Your task to perform on an android device: Search for jbl charge 4 on ebay.com, select the first entry, add it to the cart, then select checkout. Image 0: 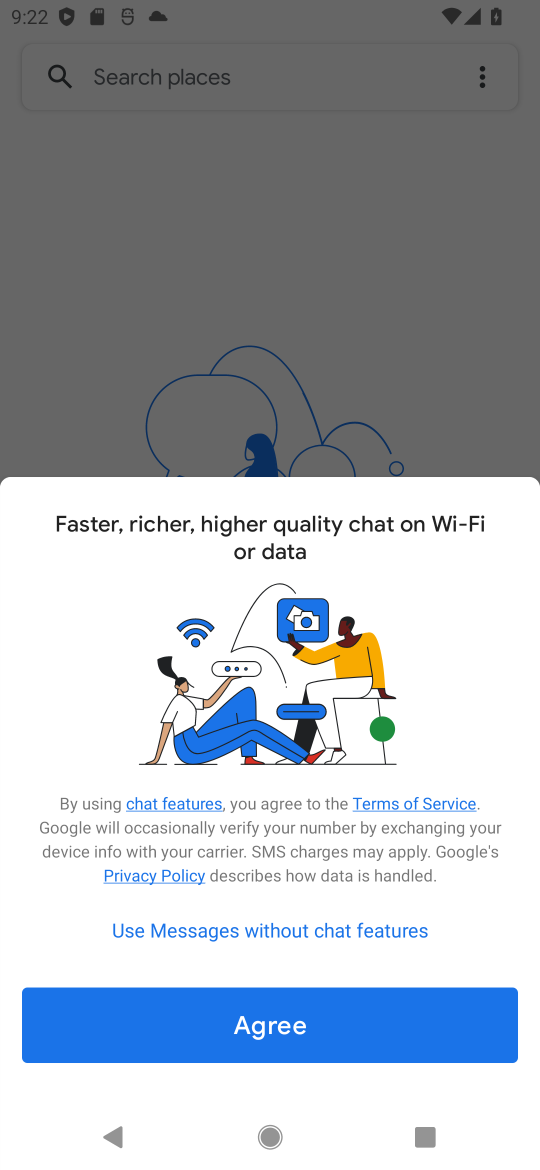
Step 0: press home button
Your task to perform on an android device: Search for jbl charge 4 on ebay.com, select the first entry, add it to the cart, then select checkout. Image 1: 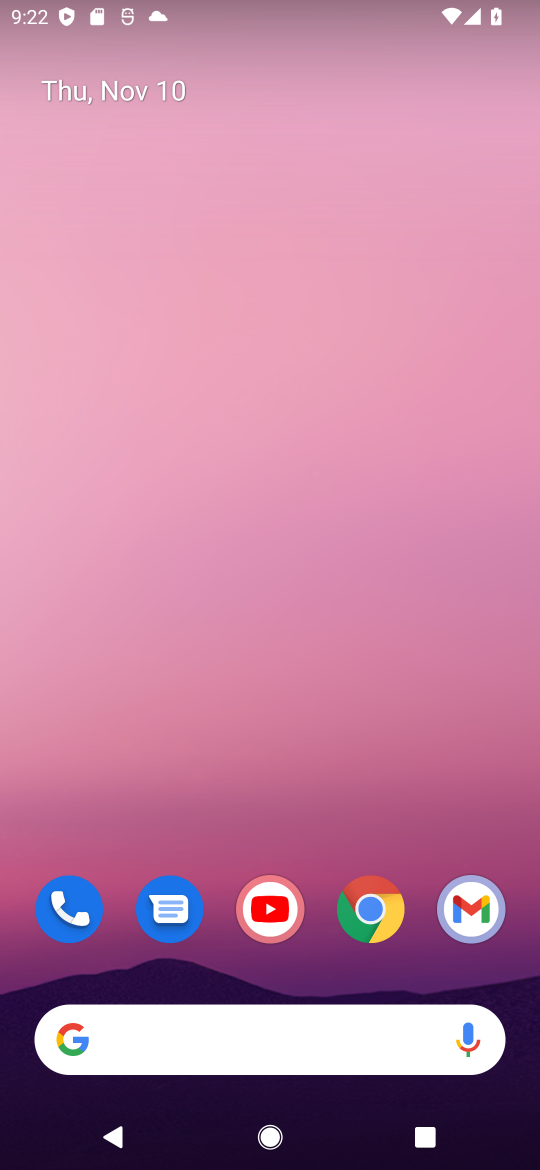
Step 1: drag from (159, 1023) to (295, 469)
Your task to perform on an android device: Search for jbl charge 4 on ebay.com, select the first entry, add it to the cart, then select checkout. Image 2: 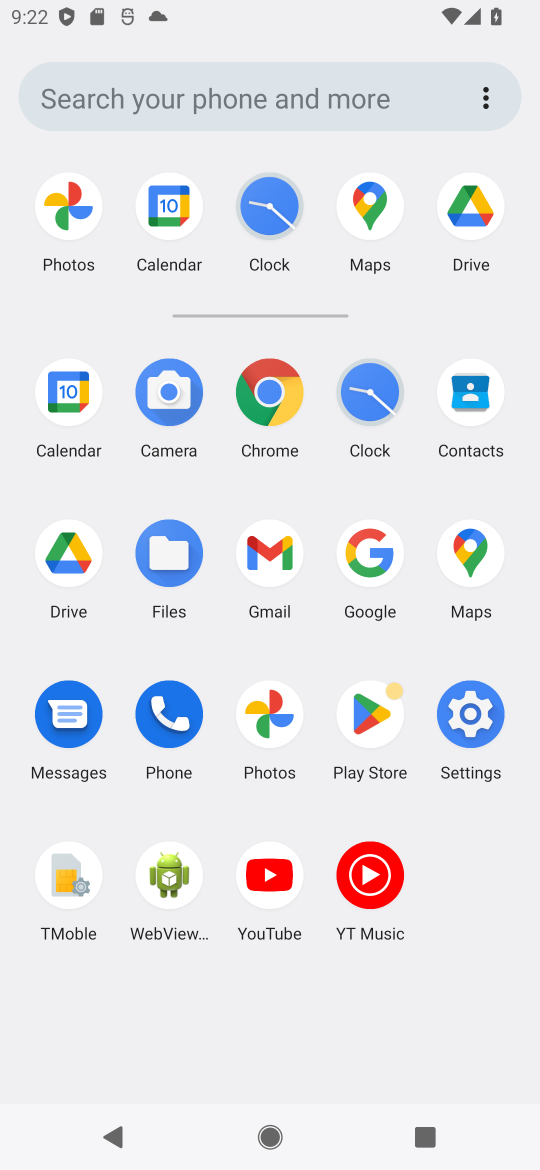
Step 2: click (365, 532)
Your task to perform on an android device: Search for jbl charge 4 on ebay.com, select the first entry, add it to the cart, then select checkout. Image 3: 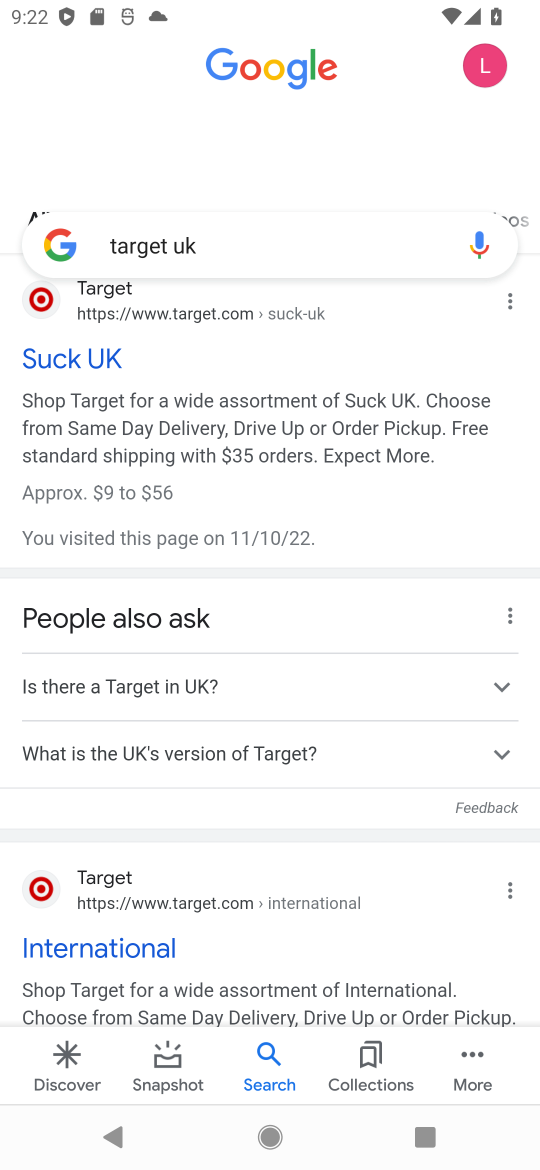
Step 3: click (213, 234)
Your task to perform on an android device: Search for jbl charge 4 on ebay.com, select the first entry, add it to the cart, then select checkout. Image 4: 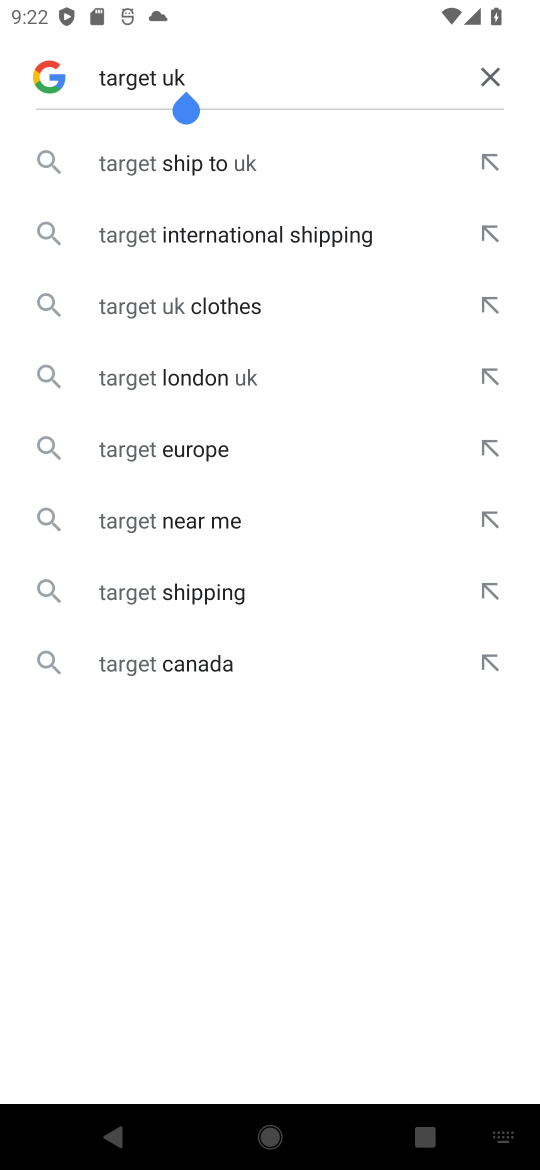
Step 4: click (494, 68)
Your task to perform on an android device: Search for jbl charge 4 on ebay.com, select the first entry, add it to the cart, then select checkout. Image 5: 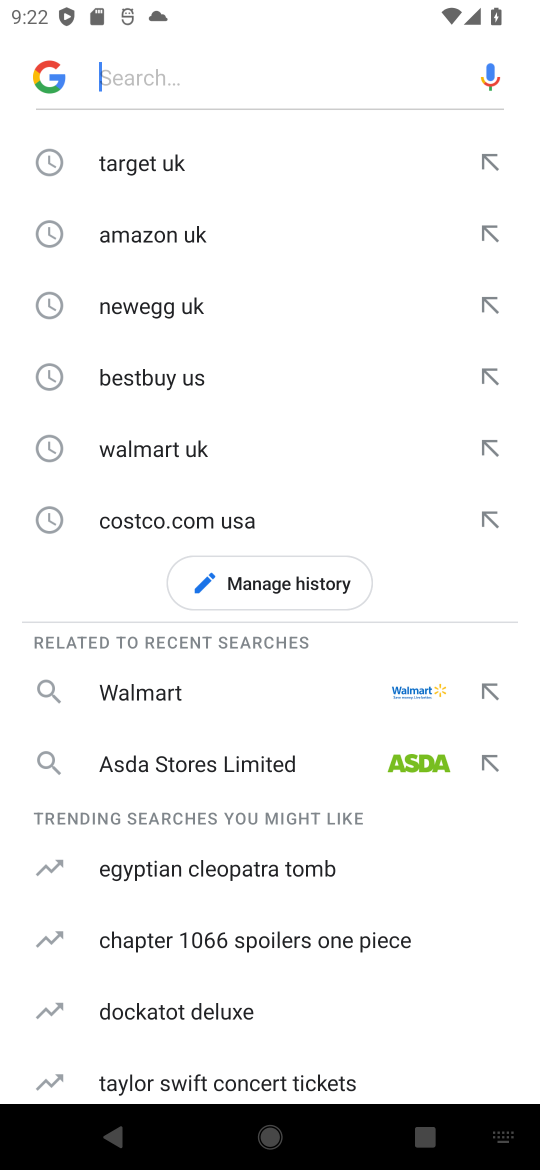
Step 5: click (240, 83)
Your task to perform on an android device: Search for jbl charge 4 on ebay.com, select the first entry, add it to the cart, then select checkout. Image 6: 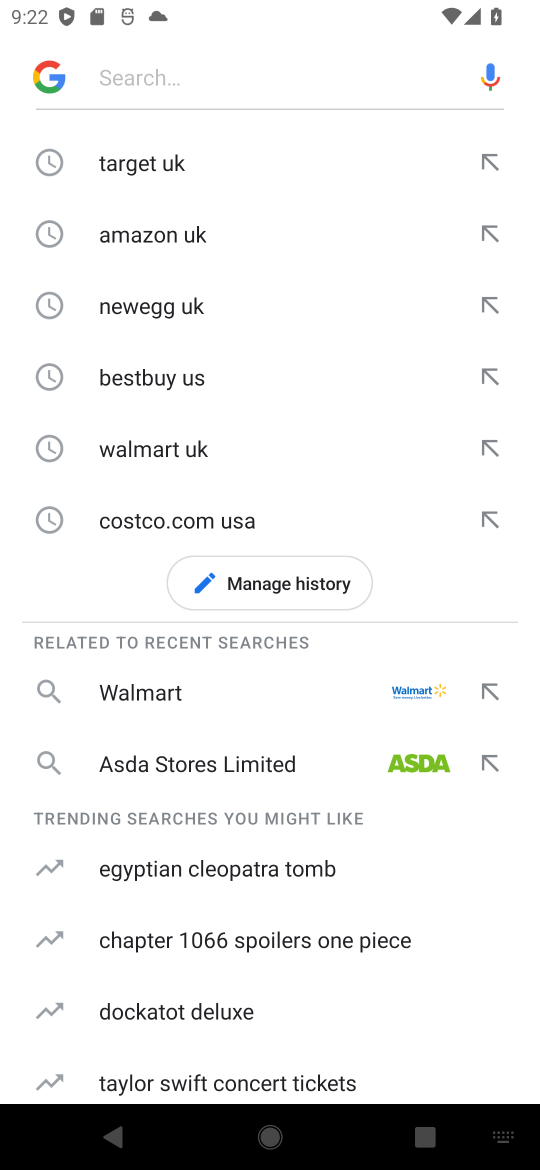
Step 6: type "ebay "
Your task to perform on an android device: Search for jbl charge 4 on ebay.com, select the first entry, add it to the cart, then select checkout. Image 7: 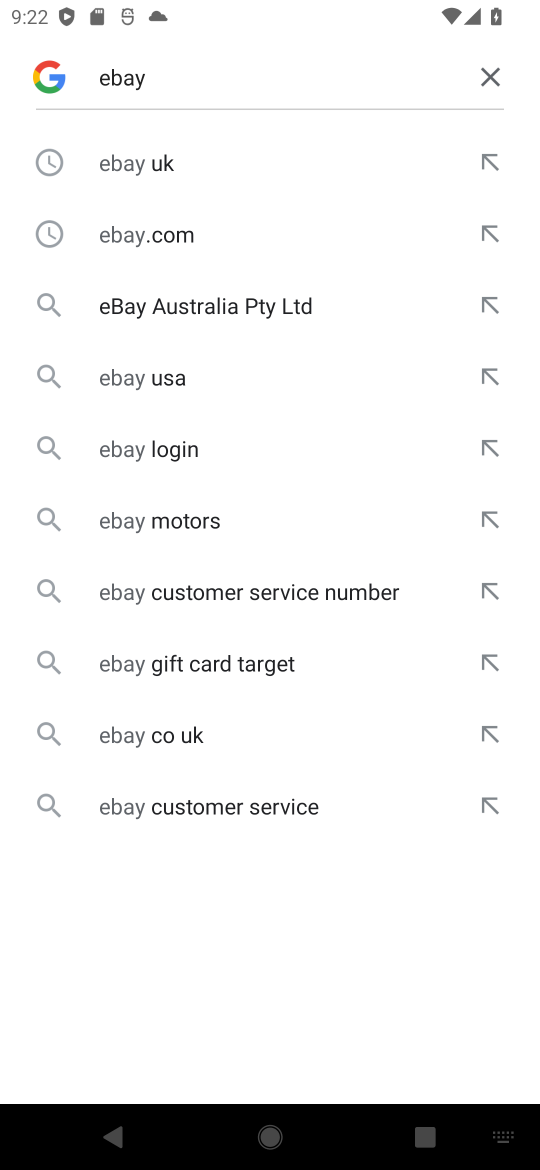
Step 7: click (133, 148)
Your task to perform on an android device: Search for jbl charge 4 on ebay.com, select the first entry, add it to the cart, then select checkout. Image 8: 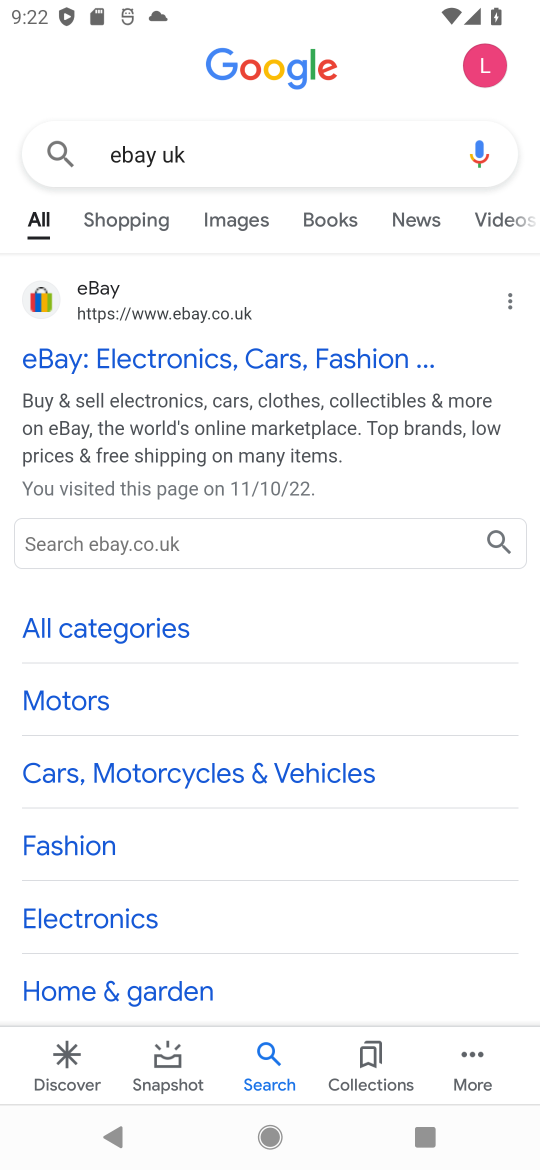
Step 8: click (34, 298)
Your task to perform on an android device: Search for jbl charge 4 on ebay.com, select the first entry, add it to the cart, then select checkout. Image 9: 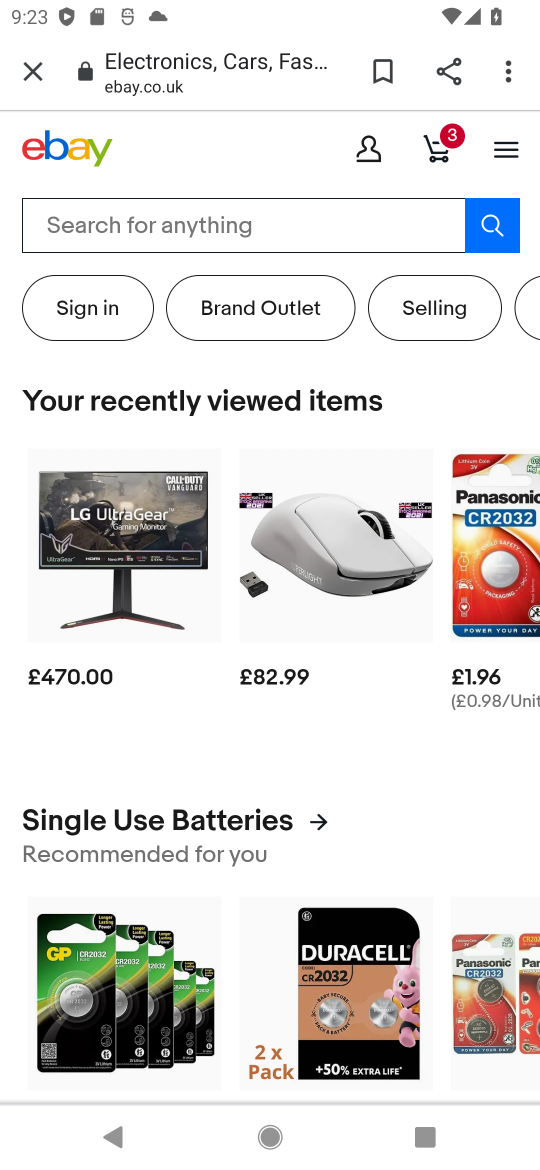
Step 9: click (212, 213)
Your task to perform on an android device: Search for jbl charge 4 on ebay.com, select the first entry, add it to the cart, then select checkout. Image 10: 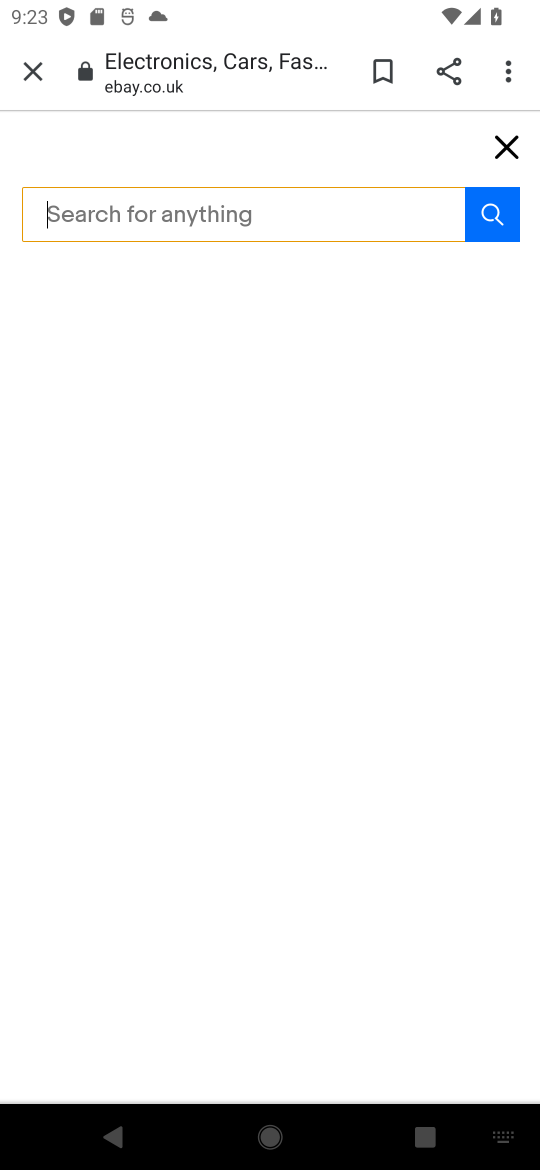
Step 10: type "jbl charge 4 "
Your task to perform on an android device: Search for jbl charge 4 on ebay.com, select the first entry, add it to the cart, then select checkout. Image 11: 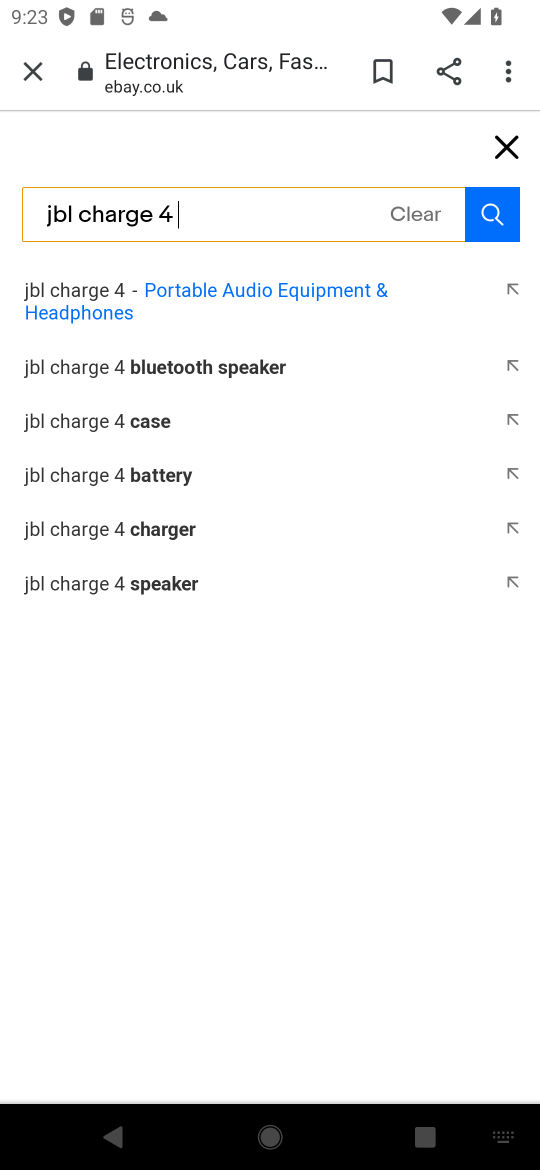
Step 11: click (190, 292)
Your task to perform on an android device: Search for jbl charge 4 on ebay.com, select the first entry, add it to the cart, then select checkout. Image 12: 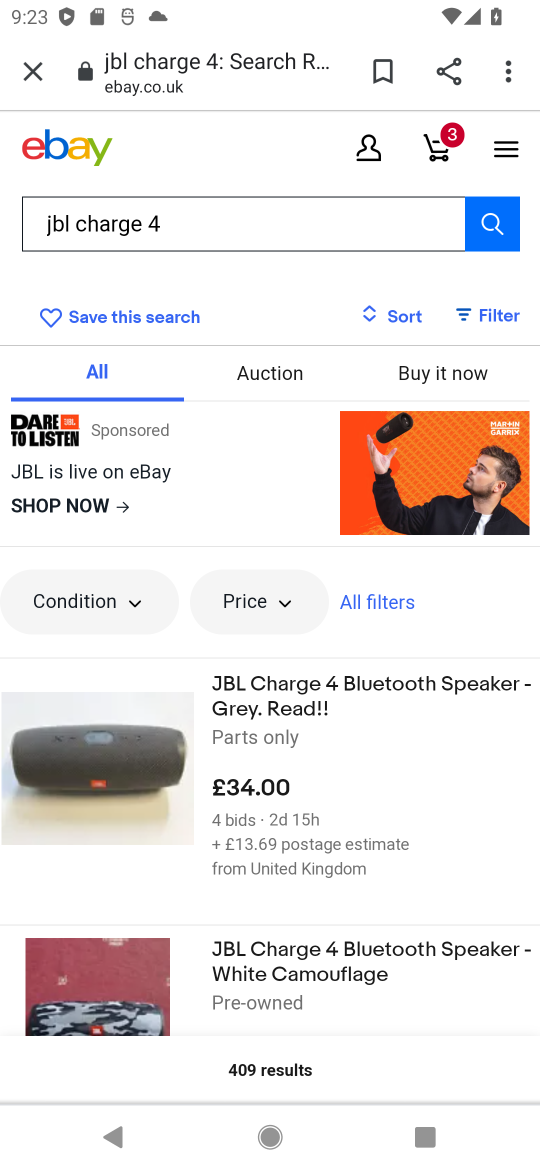
Step 12: click (317, 691)
Your task to perform on an android device: Search for jbl charge 4 on ebay.com, select the first entry, add it to the cart, then select checkout. Image 13: 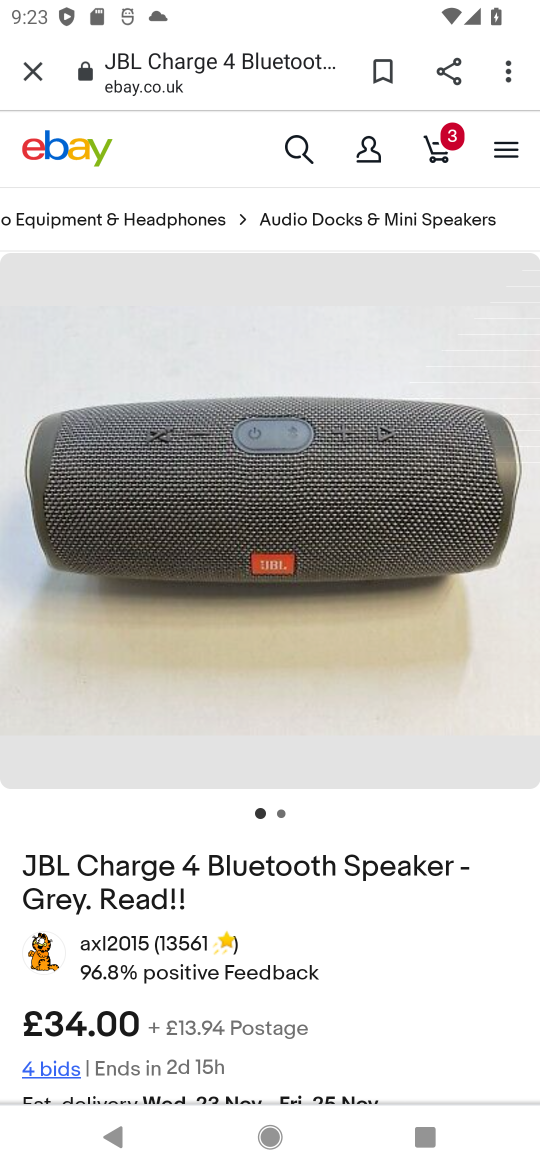
Step 13: drag from (310, 1008) to (414, 355)
Your task to perform on an android device: Search for jbl charge 4 on ebay.com, select the first entry, add it to the cart, then select checkout. Image 14: 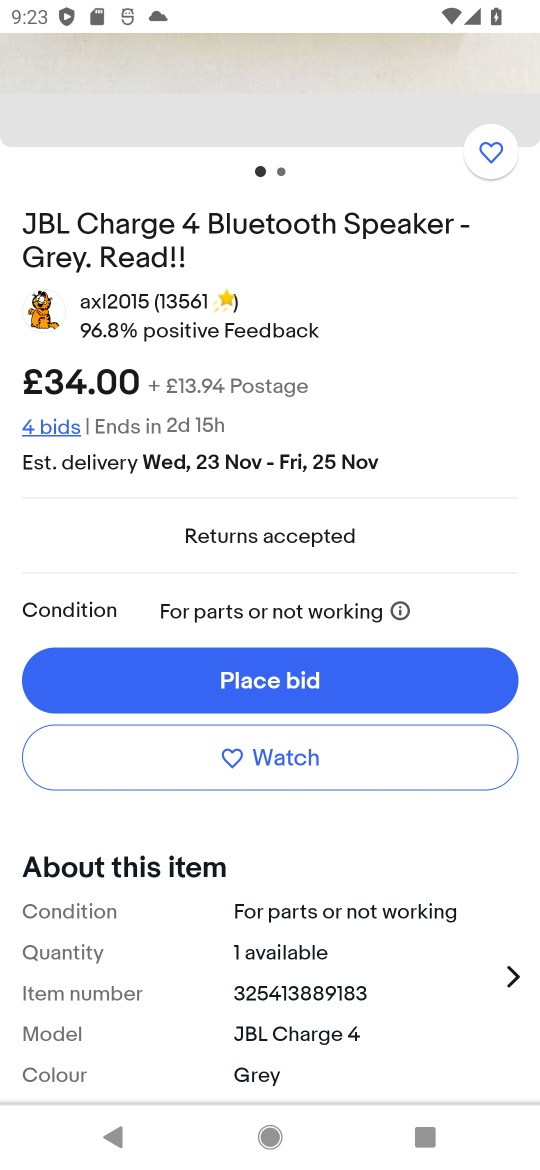
Step 14: drag from (286, 1083) to (410, 185)
Your task to perform on an android device: Search for jbl charge 4 on ebay.com, select the first entry, add it to the cart, then select checkout. Image 15: 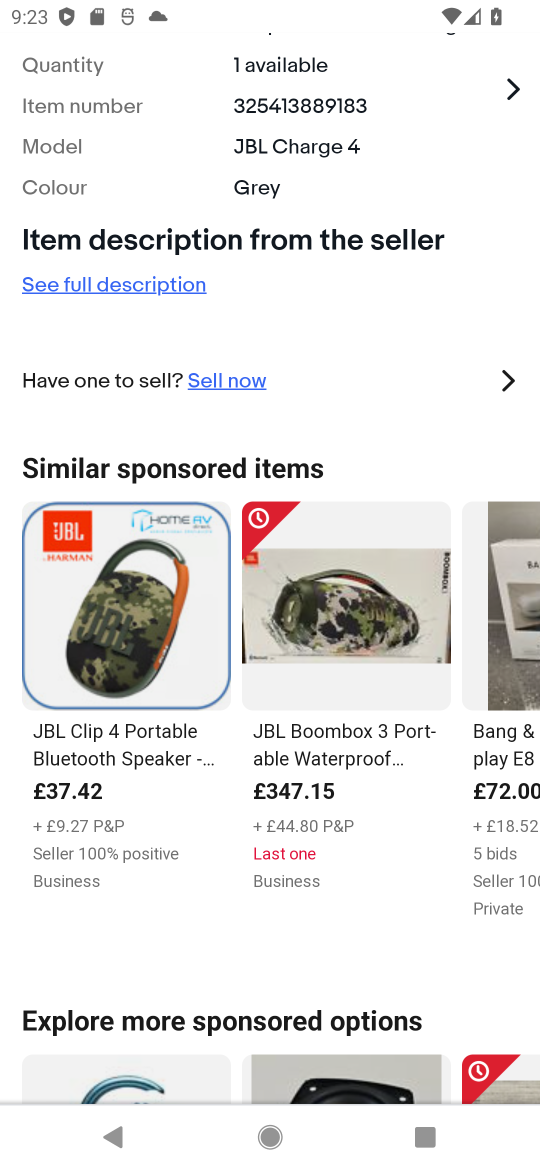
Step 15: click (127, 730)
Your task to perform on an android device: Search for jbl charge 4 on ebay.com, select the first entry, add it to the cart, then select checkout. Image 16: 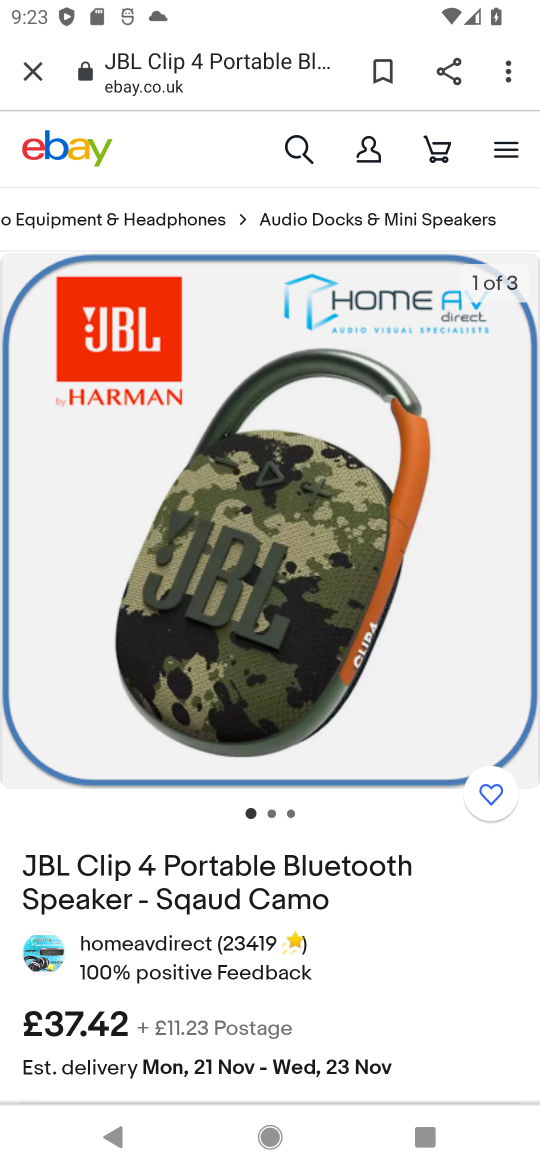
Step 16: drag from (218, 1059) to (366, 336)
Your task to perform on an android device: Search for jbl charge 4 on ebay.com, select the first entry, add it to the cart, then select checkout. Image 17: 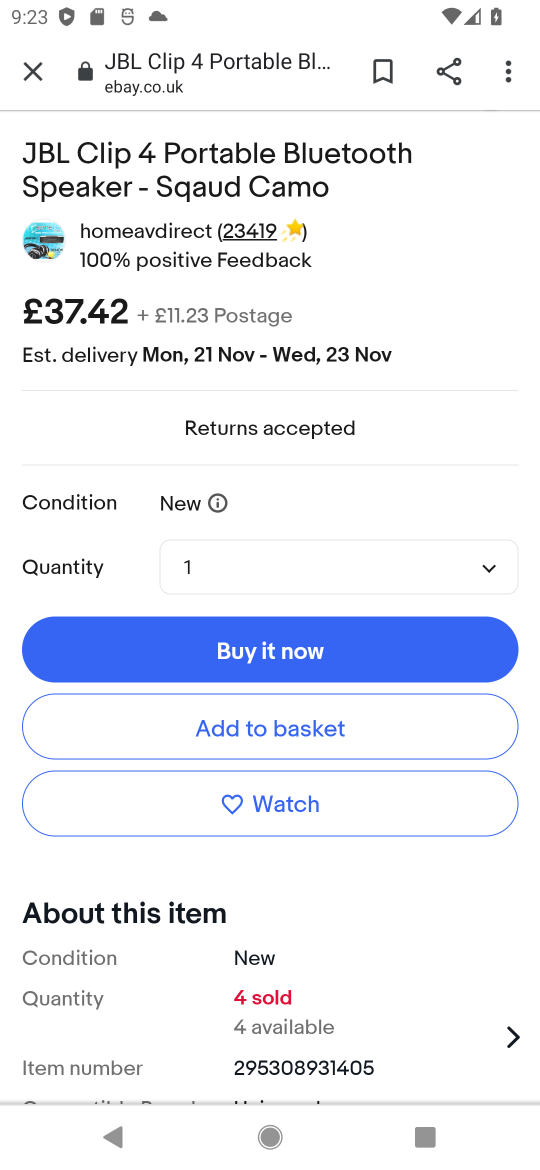
Step 17: click (284, 734)
Your task to perform on an android device: Search for jbl charge 4 on ebay.com, select the first entry, add it to the cart, then select checkout. Image 18: 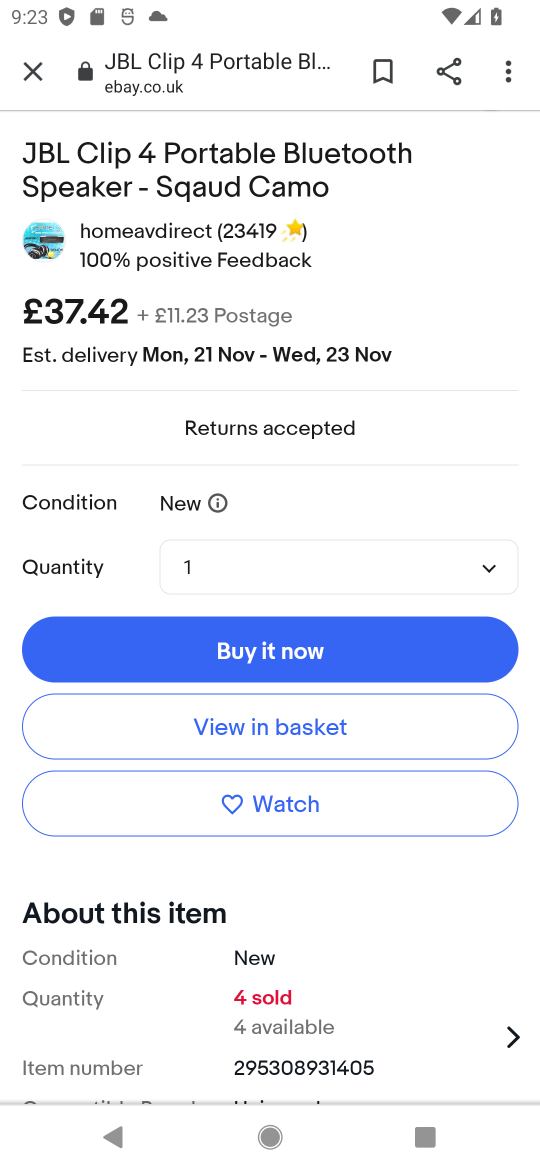
Step 18: task complete